Your task to perform on an android device: Search for sushi restaurants on Maps Image 0: 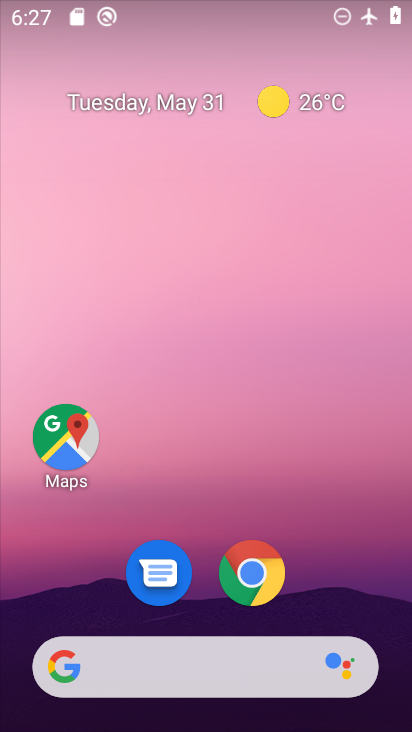
Step 0: drag from (353, 481) to (293, 105)
Your task to perform on an android device: Search for sushi restaurants on Maps Image 1: 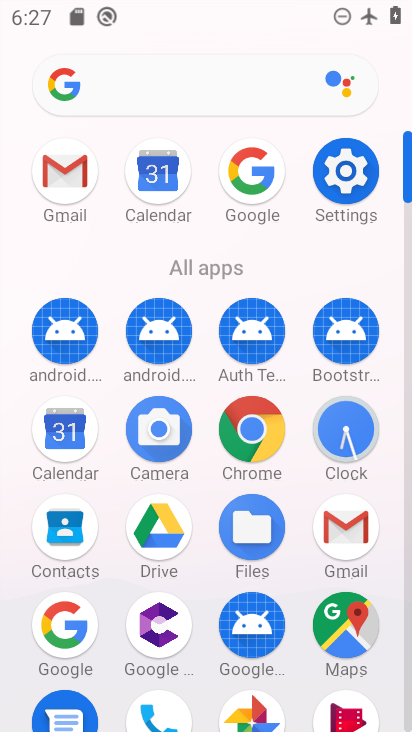
Step 1: click (351, 602)
Your task to perform on an android device: Search for sushi restaurants on Maps Image 2: 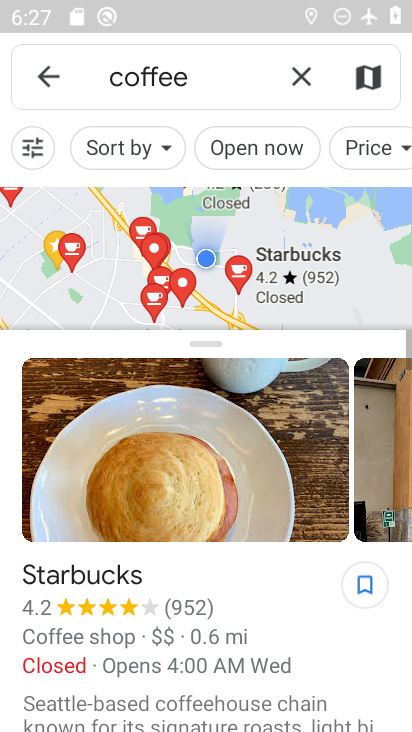
Step 2: click (294, 69)
Your task to perform on an android device: Search for sushi restaurants on Maps Image 3: 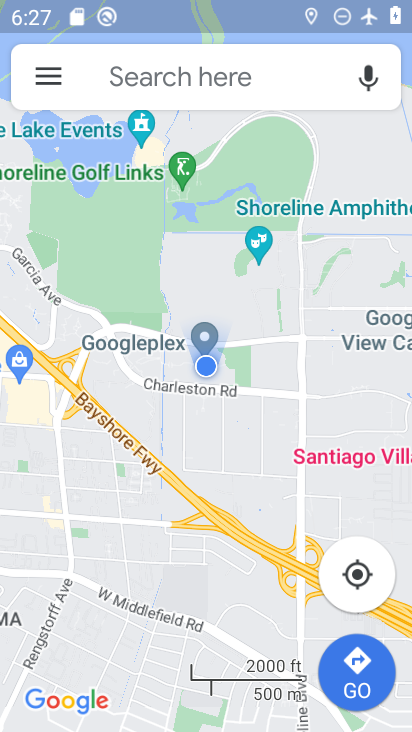
Step 3: click (220, 85)
Your task to perform on an android device: Search for sushi restaurants on Maps Image 4: 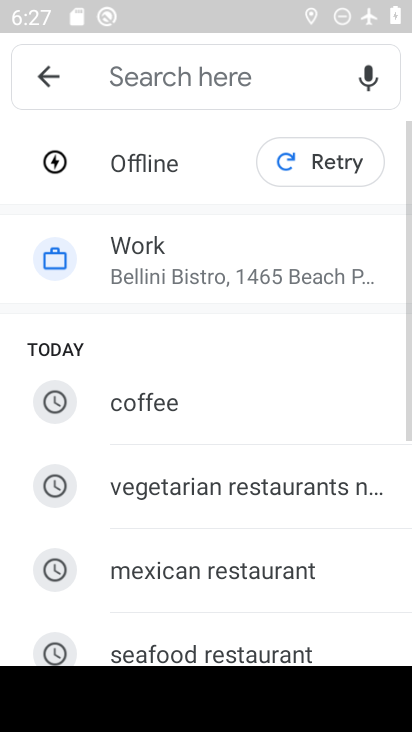
Step 4: drag from (214, 608) to (240, 145)
Your task to perform on an android device: Search for sushi restaurants on Maps Image 5: 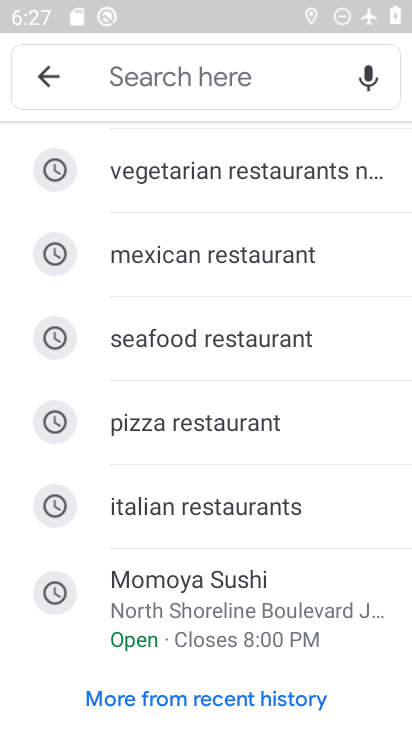
Step 5: drag from (194, 249) to (216, 635)
Your task to perform on an android device: Search for sushi restaurants on Maps Image 6: 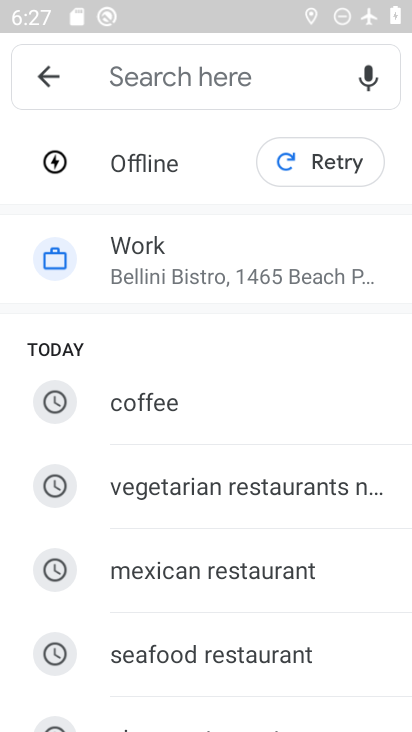
Step 6: click (214, 574)
Your task to perform on an android device: Search for sushi restaurants on Maps Image 7: 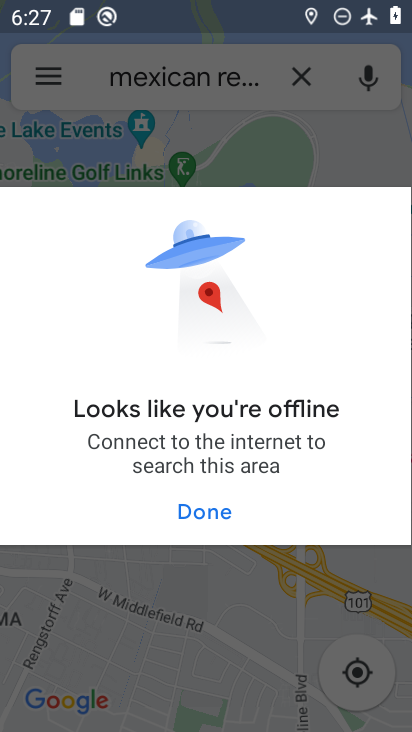
Step 7: task complete